Your task to perform on an android device: Open accessibility settings Image 0: 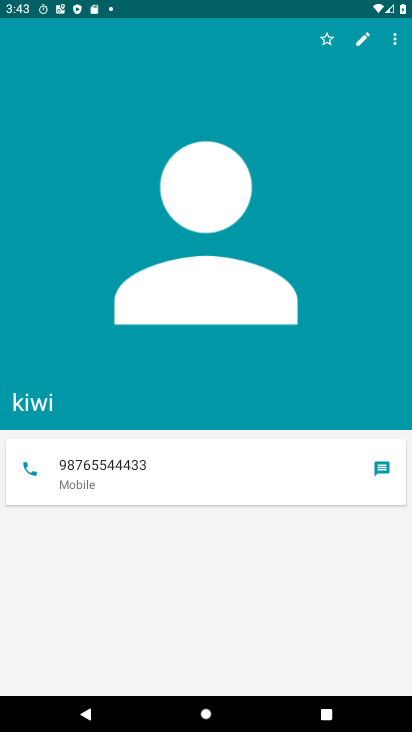
Step 0: press home button
Your task to perform on an android device: Open accessibility settings Image 1: 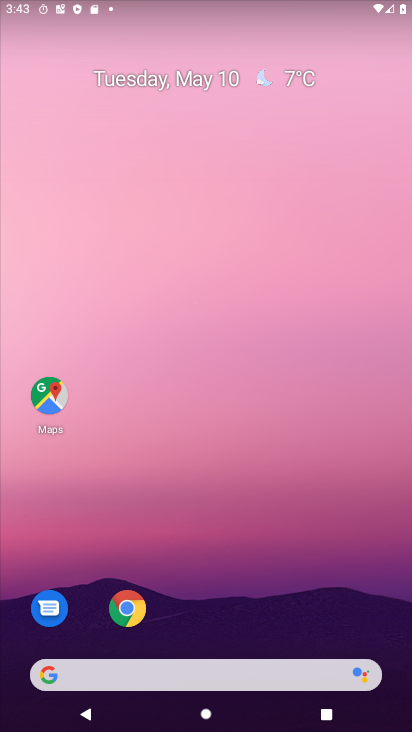
Step 1: drag from (318, 401) to (322, 11)
Your task to perform on an android device: Open accessibility settings Image 2: 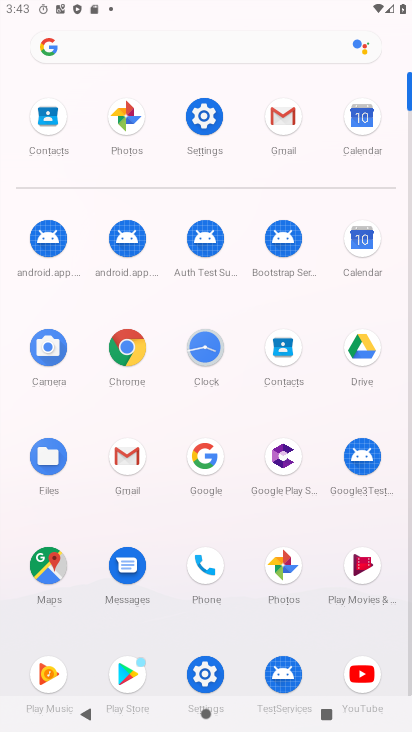
Step 2: click (201, 126)
Your task to perform on an android device: Open accessibility settings Image 3: 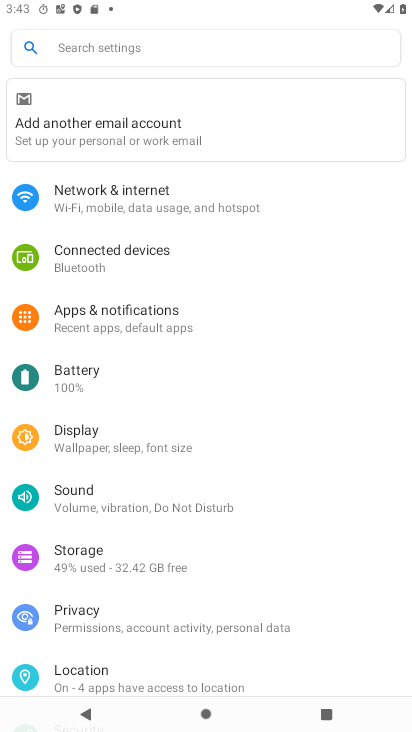
Step 3: drag from (334, 621) to (327, 383)
Your task to perform on an android device: Open accessibility settings Image 4: 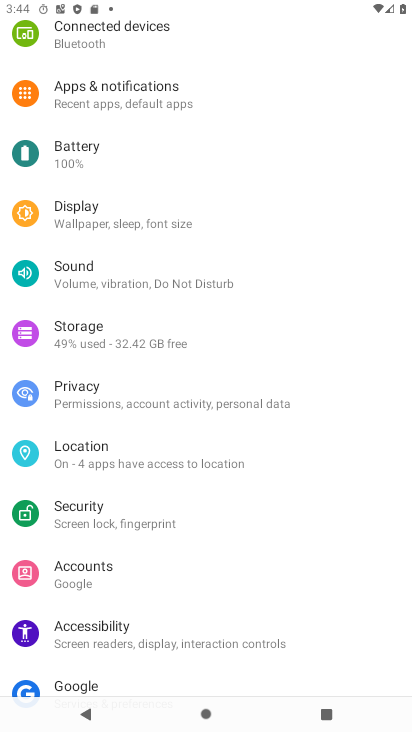
Step 4: click (108, 634)
Your task to perform on an android device: Open accessibility settings Image 5: 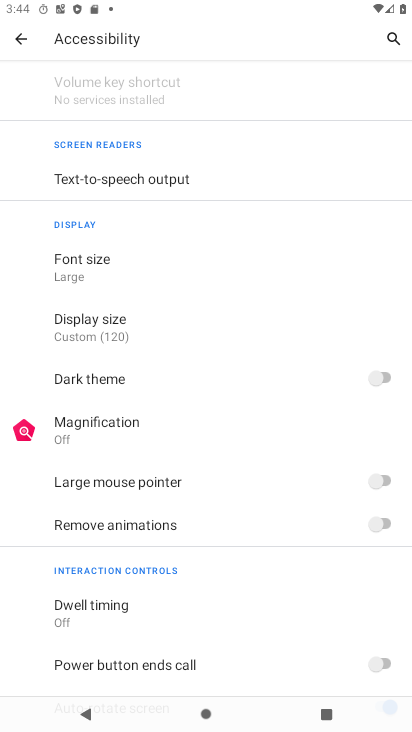
Step 5: task complete